Your task to perform on an android device: Open settings Image 0: 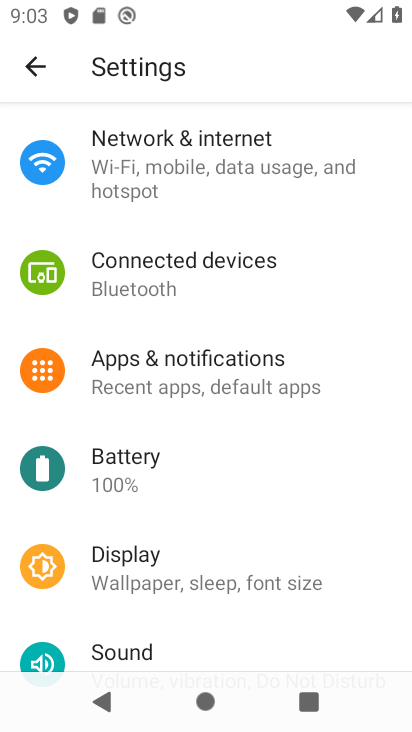
Step 0: press home button
Your task to perform on an android device: Open settings Image 1: 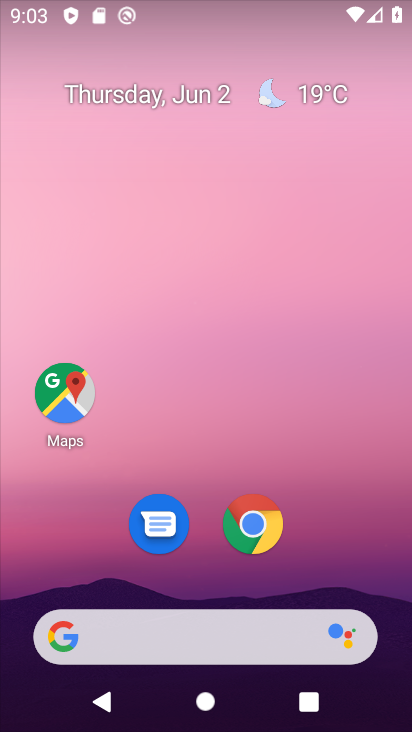
Step 1: drag from (209, 457) to (234, 15)
Your task to perform on an android device: Open settings Image 2: 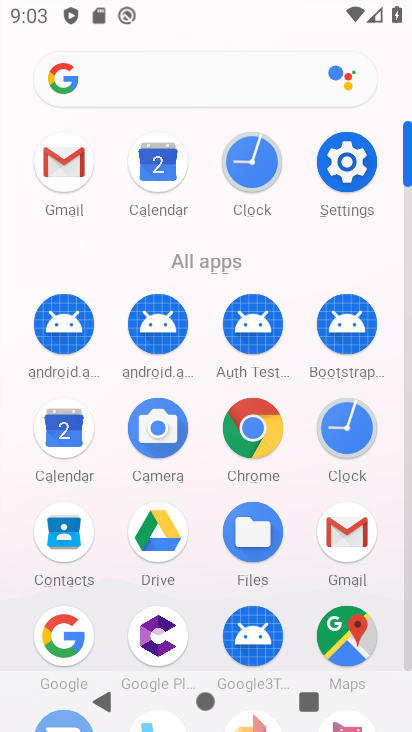
Step 2: click (342, 169)
Your task to perform on an android device: Open settings Image 3: 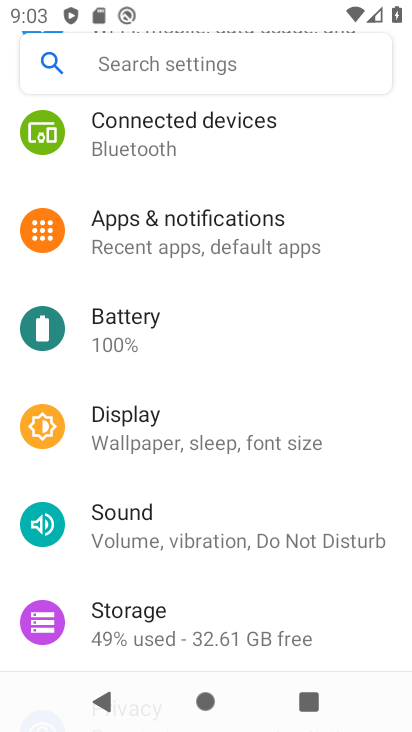
Step 3: task complete